Your task to perform on an android device: Open Google Chrome Image 0: 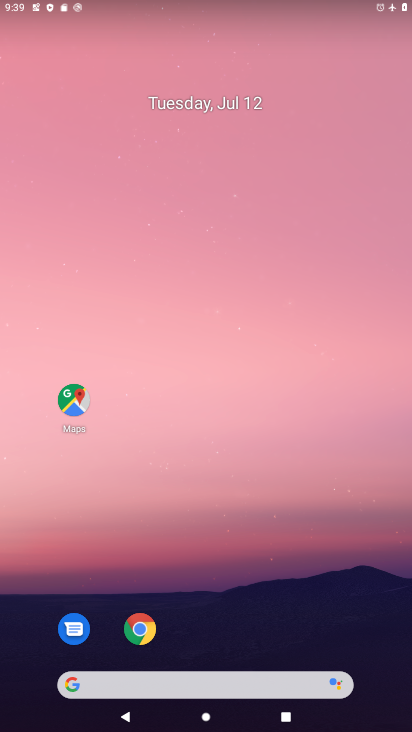
Step 0: drag from (253, 629) to (177, 234)
Your task to perform on an android device: Open Google Chrome Image 1: 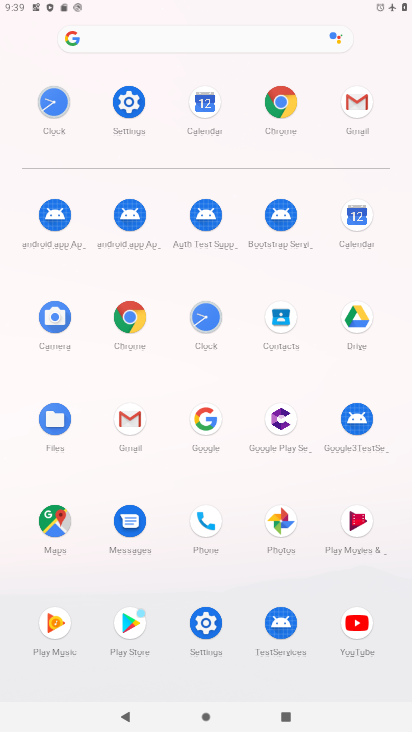
Step 1: click (209, 434)
Your task to perform on an android device: Open Google Chrome Image 2: 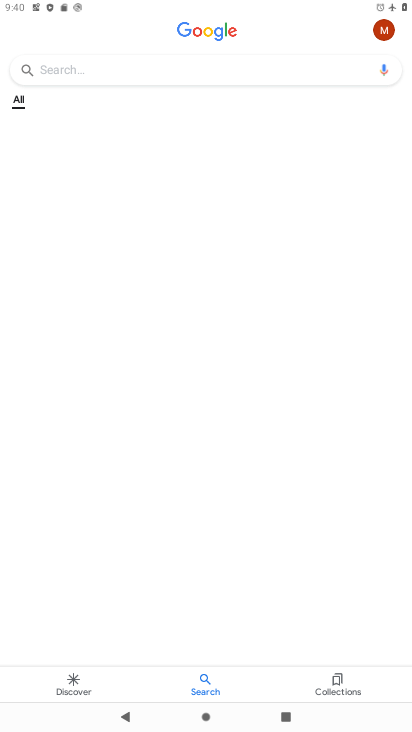
Step 2: task complete